Your task to perform on an android device: Open eBay Image 0: 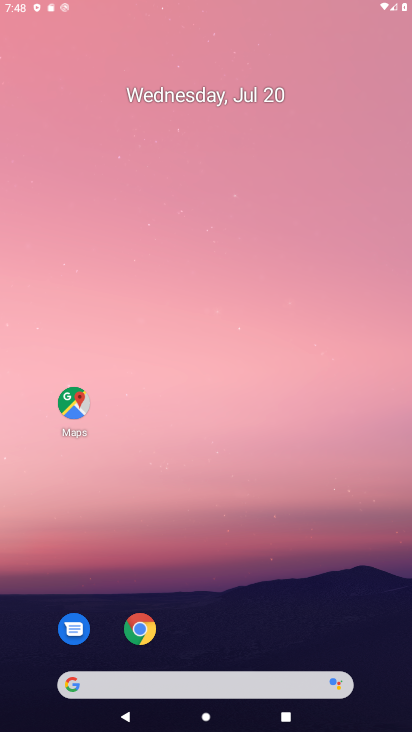
Step 0: click (236, 221)
Your task to perform on an android device: Open eBay Image 1: 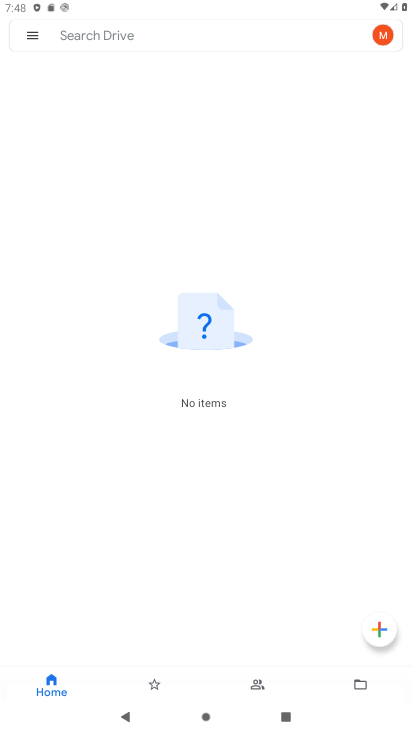
Step 1: press back button
Your task to perform on an android device: Open eBay Image 2: 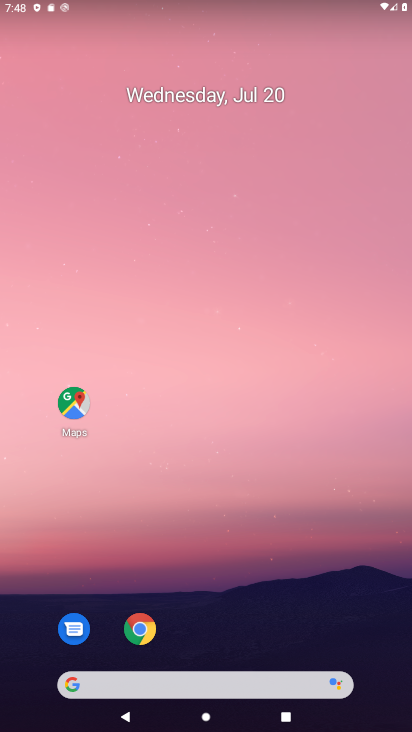
Step 2: drag from (212, 685) to (194, 393)
Your task to perform on an android device: Open eBay Image 3: 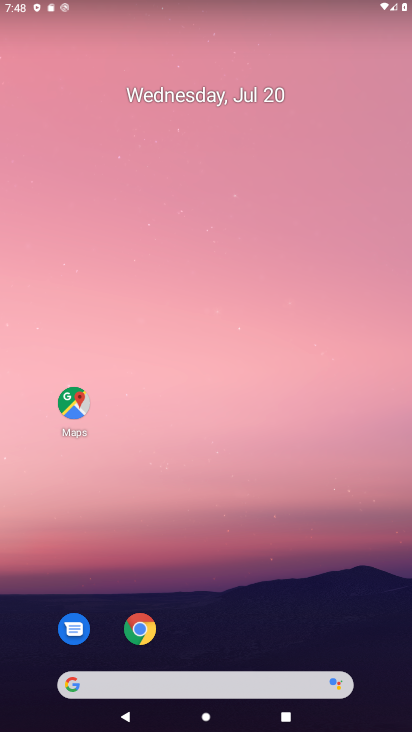
Step 3: drag from (237, 643) to (162, 88)
Your task to perform on an android device: Open eBay Image 4: 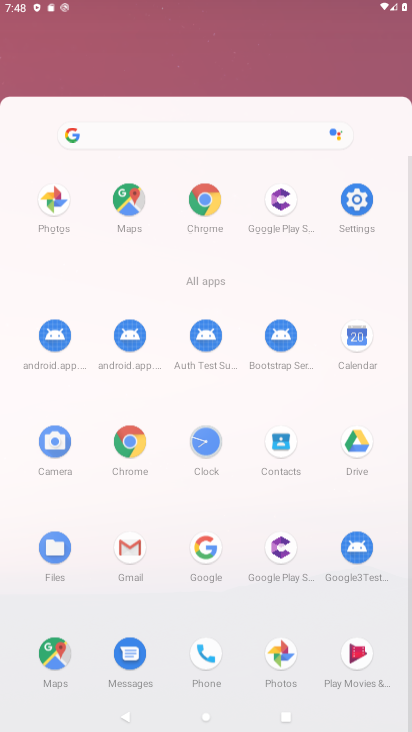
Step 4: drag from (221, 472) to (172, 136)
Your task to perform on an android device: Open eBay Image 5: 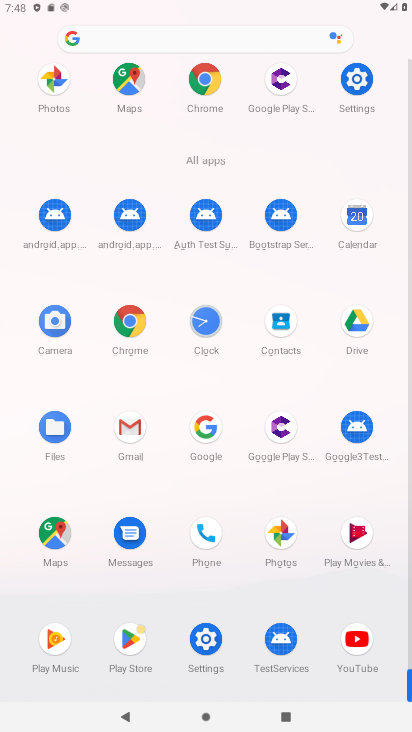
Step 5: click (132, 323)
Your task to perform on an android device: Open eBay Image 6: 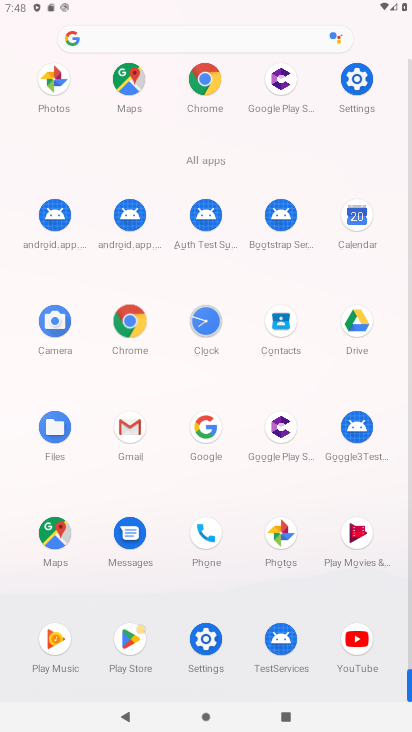
Step 6: click (132, 323)
Your task to perform on an android device: Open eBay Image 7: 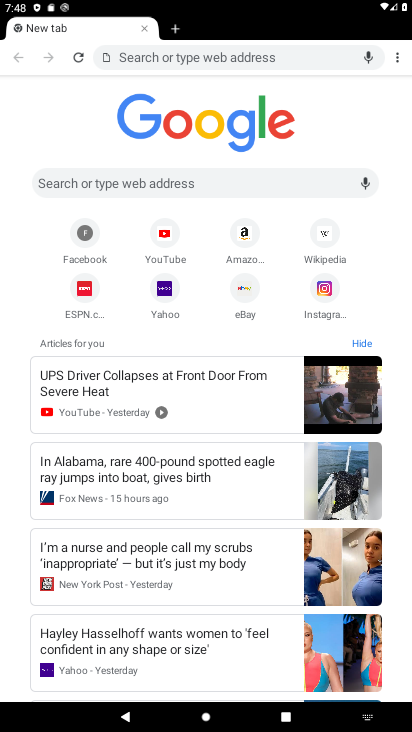
Step 7: click (246, 293)
Your task to perform on an android device: Open eBay Image 8: 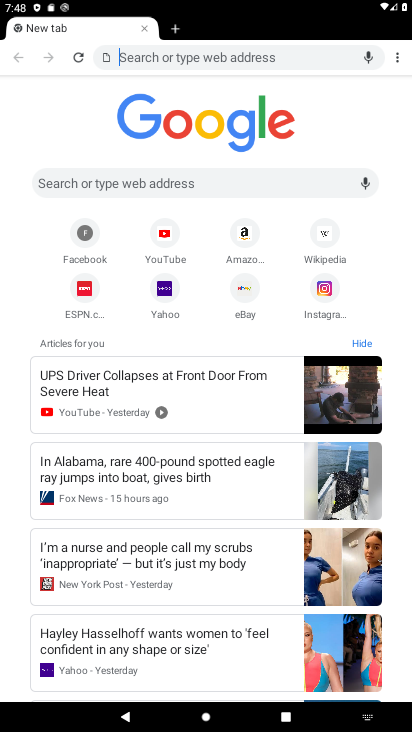
Step 8: click (249, 290)
Your task to perform on an android device: Open eBay Image 9: 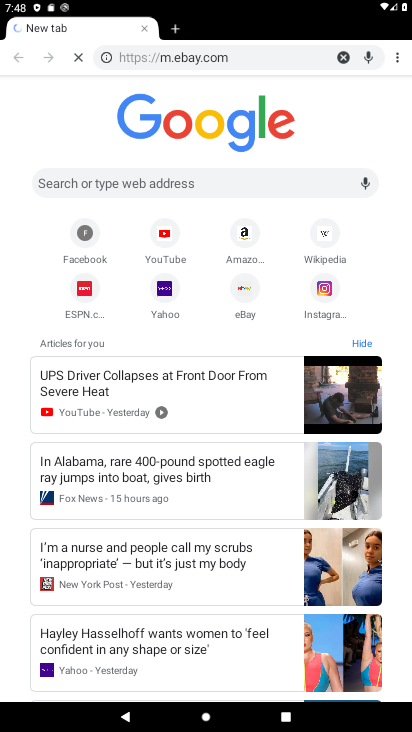
Step 9: click (252, 292)
Your task to perform on an android device: Open eBay Image 10: 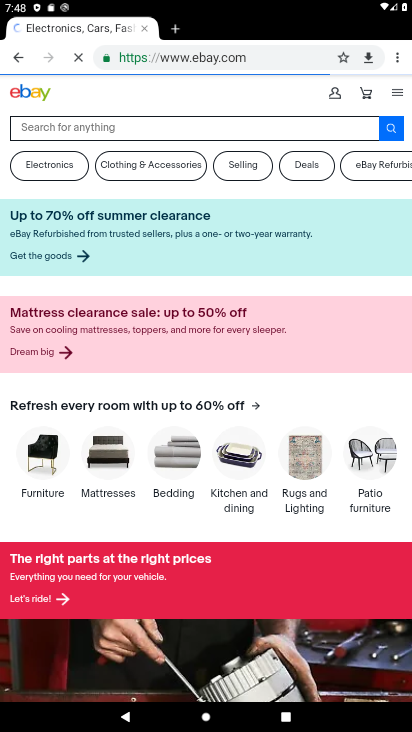
Step 10: task complete